Your task to perform on an android device: Open settings Image 0: 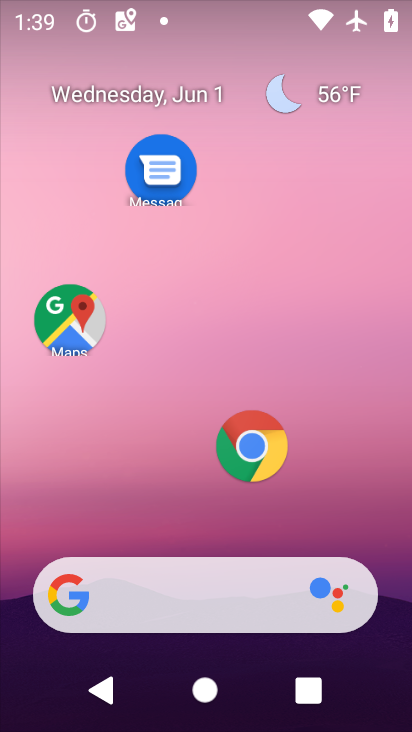
Step 0: drag from (203, 382) to (270, 176)
Your task to perform on an android device: Open settings Image 1: 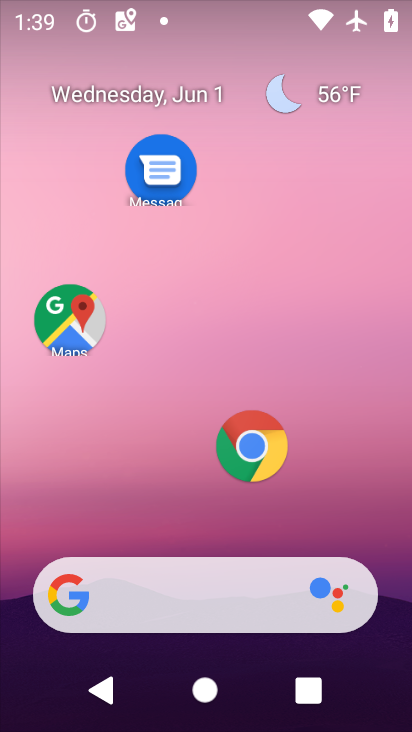
Step 1: drag from (166, 452) to (294, 2)
Your task to perform on an android device: Open settings Image 2: 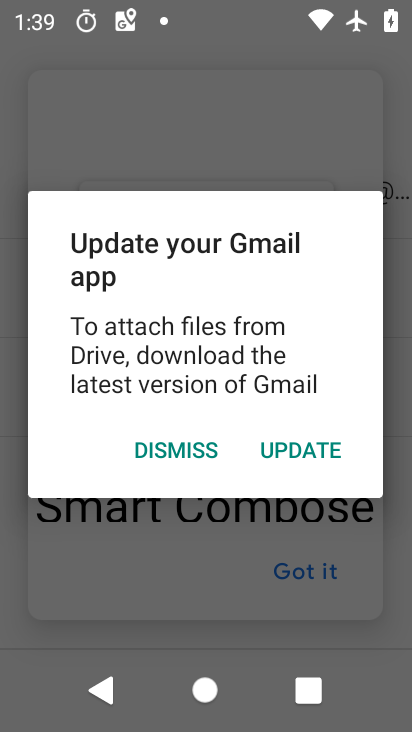
Step 2: press home button
Your task to perform on an android device: Open settings Image 3: 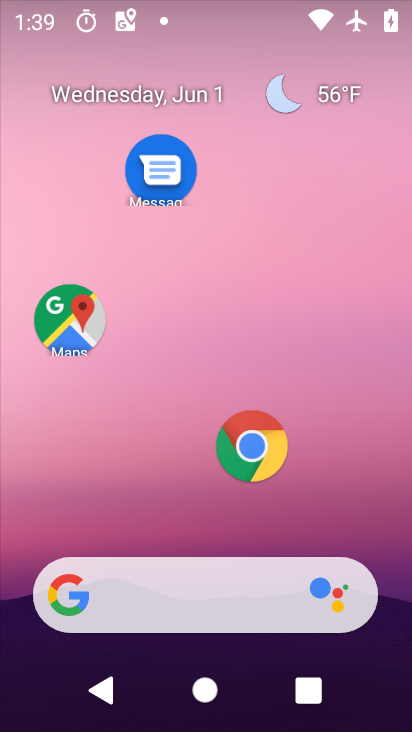
Step 3: drag from (237, 460) to (304, 4)
Your task to perform on an android device: Open settings Image 4: 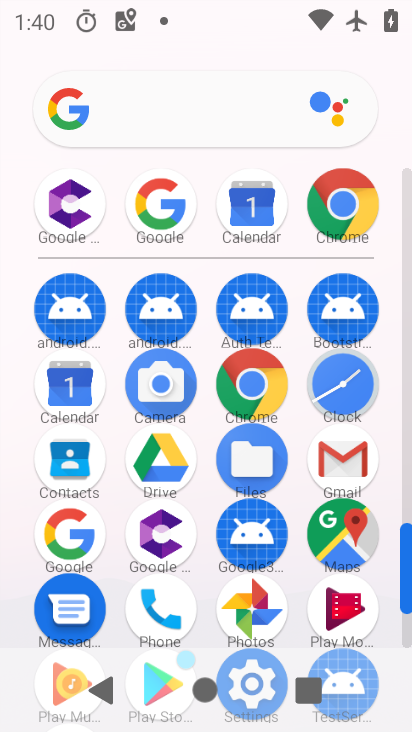
Step 4: drag from (210, 255) to (225, 42)
Your task to perform on an android device: Open settings Image 5: 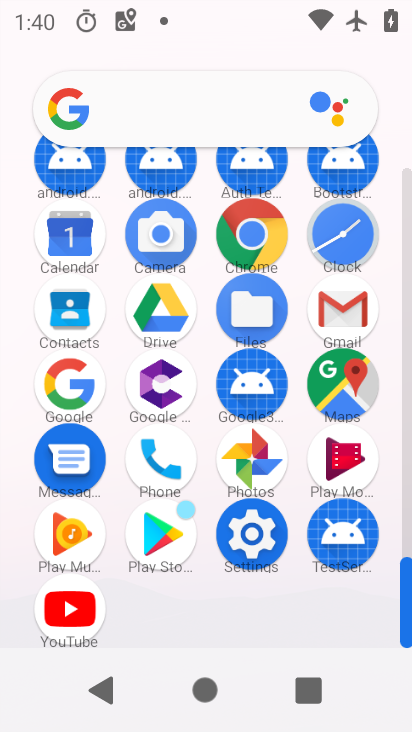
Step 5: click (249, 553)
Your task to perform on an android device: Open settings Image 6: 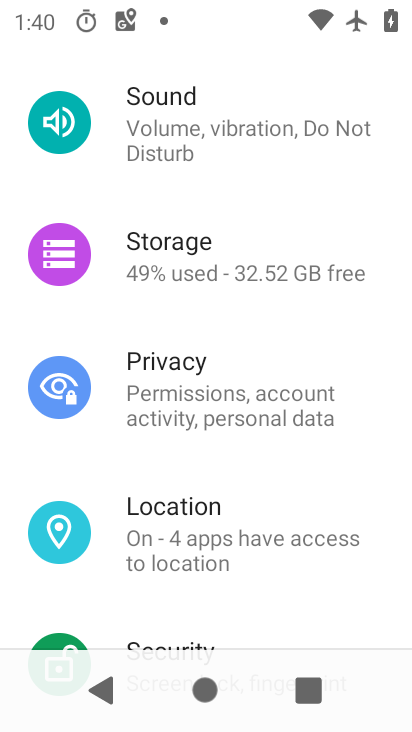
Step 6: task complete